Your task to perform on an android device: toggle location history Image 0: 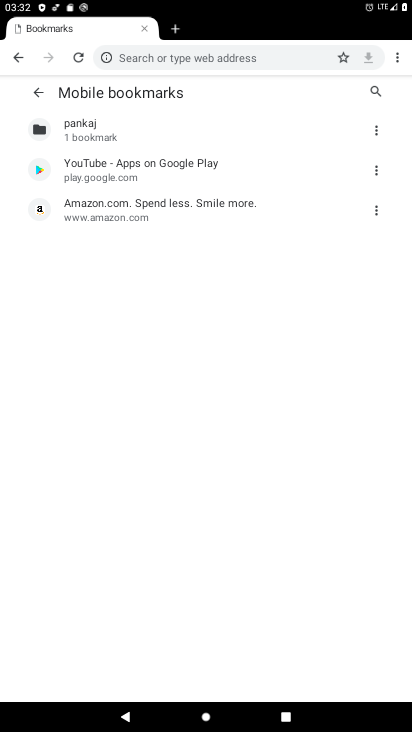
Step 0: press home button
Your task to perform on an android device: toggle location history Image 1: 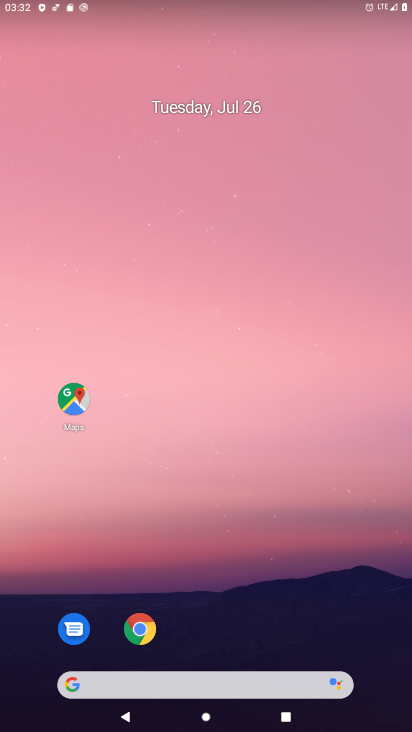
Step 1: drag from (289, 550) to (334, 71)
Your task to perform on an android device: toggle location history Image 2: 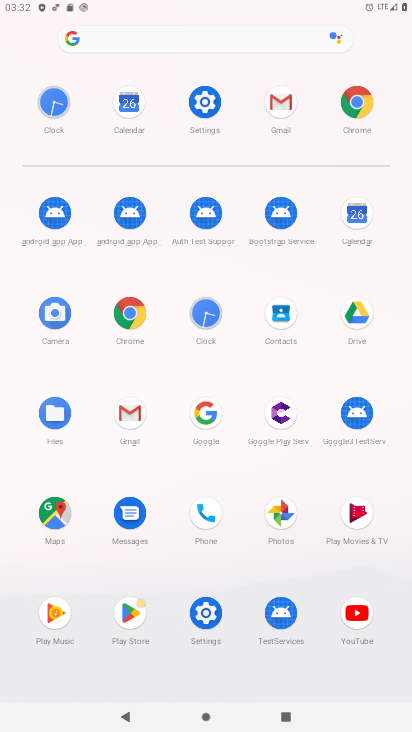
Step 2: click (57, 517)
Your task to perform on an android device: toggle location history Image 3: 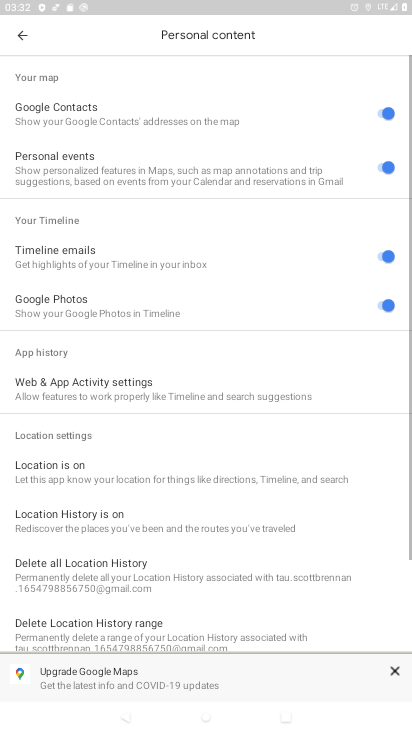
Step 3: click (17, 36)
Your task to perform on an android device: toggle location history Image 4: 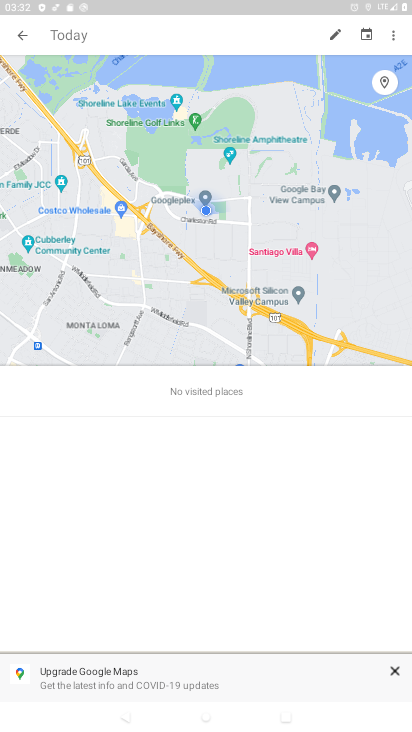
Step 4: click (390, 31)
Your task to perform on an android device: toggle location history Image 5: 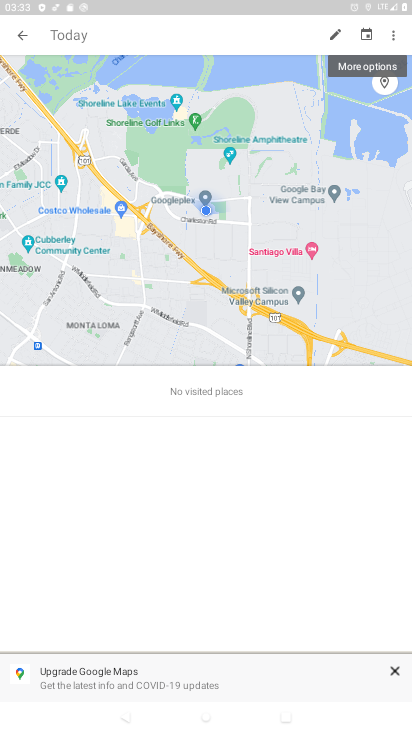
Step 5: click (390, 31)
Your task to perform on an android device: toggle location history Image 6: 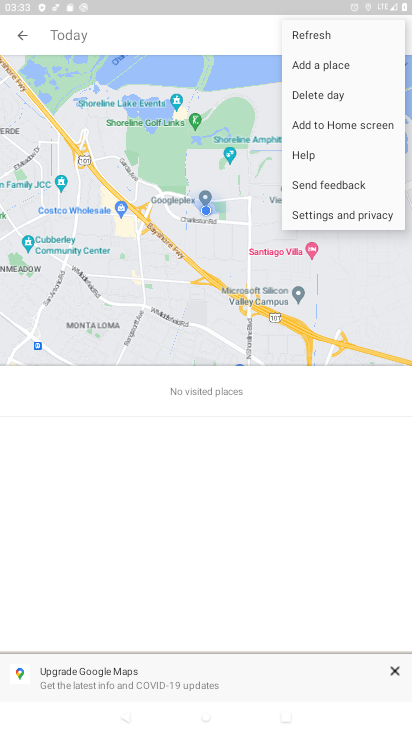
Step 6: click (341, 211)
Your task to perform on an android device: toggle location history Image 7: 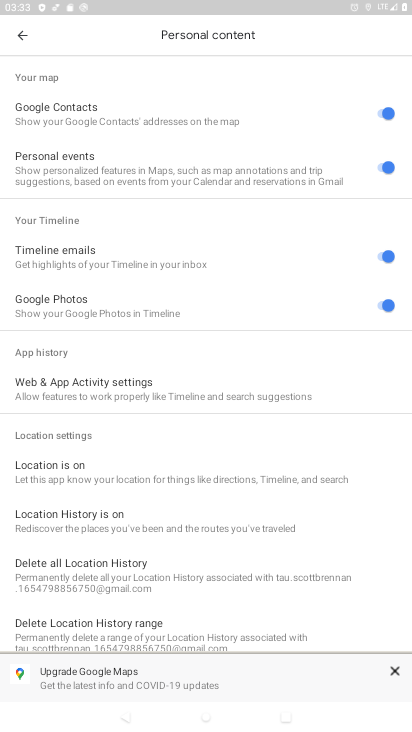
Step 7: click (99, 520)
Your task to perform on an android device: toggle location history Image 8: 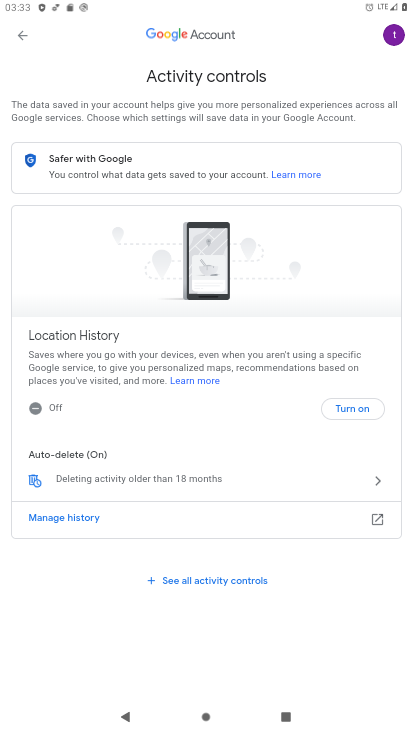
Step 8: click (359, 408)
Your task to perform on an android device: toggle location history Image 9: 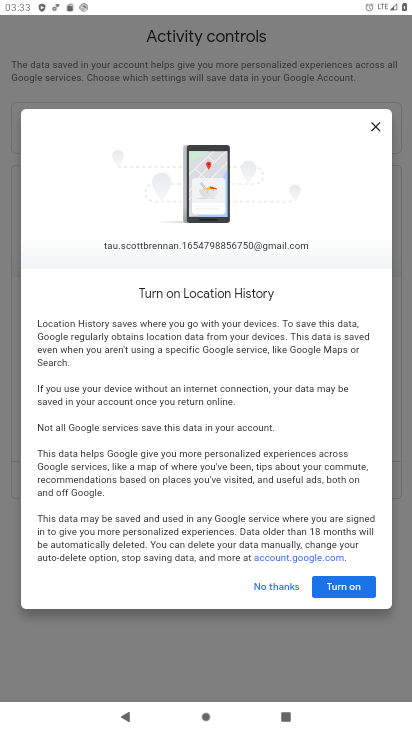
Step 9: click (338, 585)
Your task to perform on an android device: toggle location history Image 10: 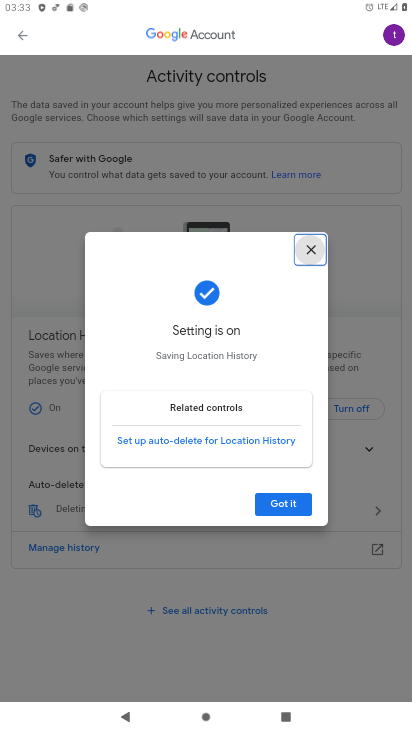
Step 10: click (289, 500)
Your task to perform on an android device: toggle location history Image 11: 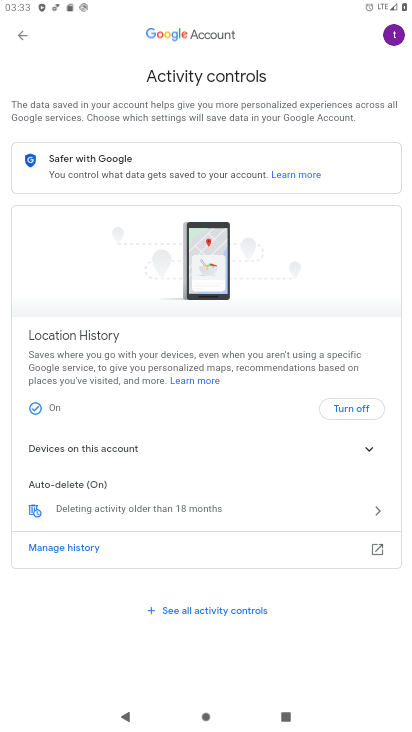
Step 11: task complete